Your task to perform on an android device: Open sound settings Image 0: 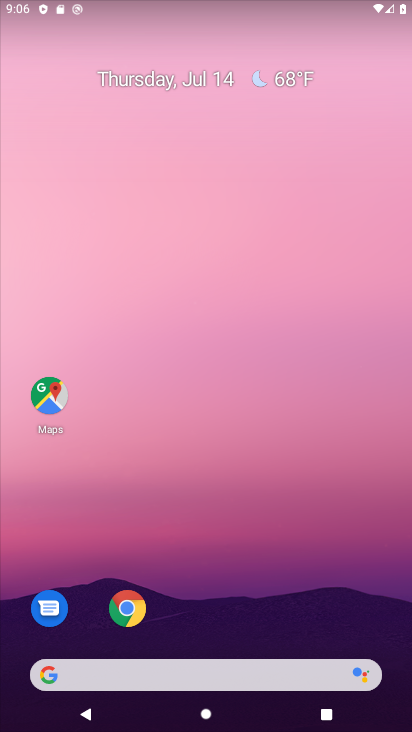
Step 0: click (231, 389)
Your task to perform on an android device: Open sound settings Image 1: 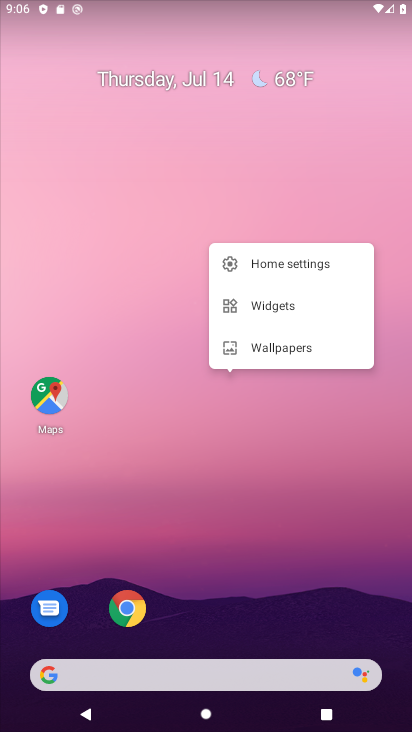
Step 1: drag from (195, 678) to (125, 123)
Your task to perform on an android device: Open sound settings Image 2: 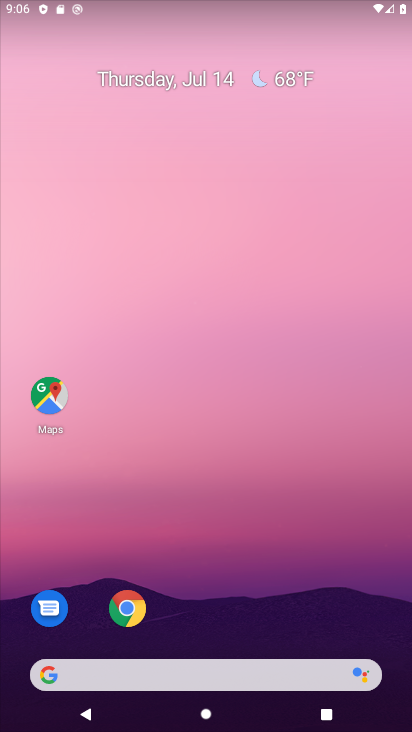
Step 2: drag from (210, 684) to (220, 93)
Your task to perform on an android device: Open sound settings Image 3: 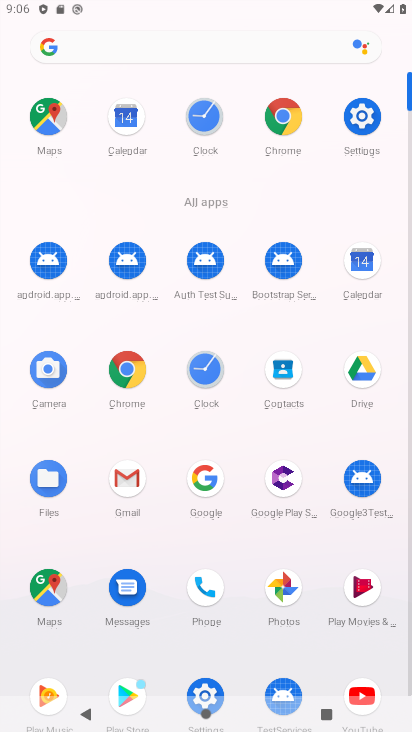
Step 3: click (357, 114)
Your task to perform on an android device: Open sound settings Image 4: 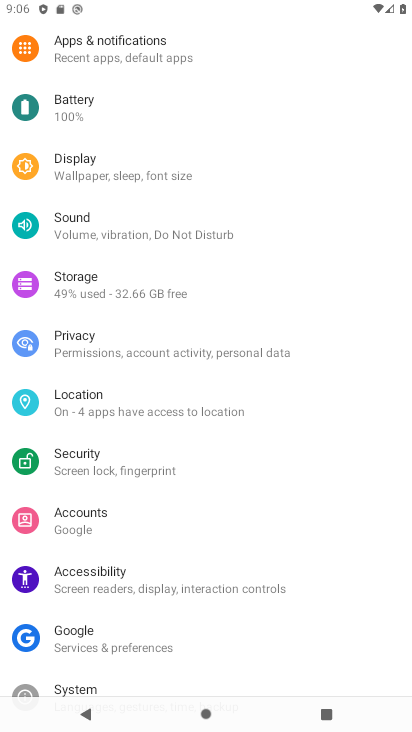
Step 4: click (66, 230)
Your task to perform on an android device: Open sound settings Image 5: 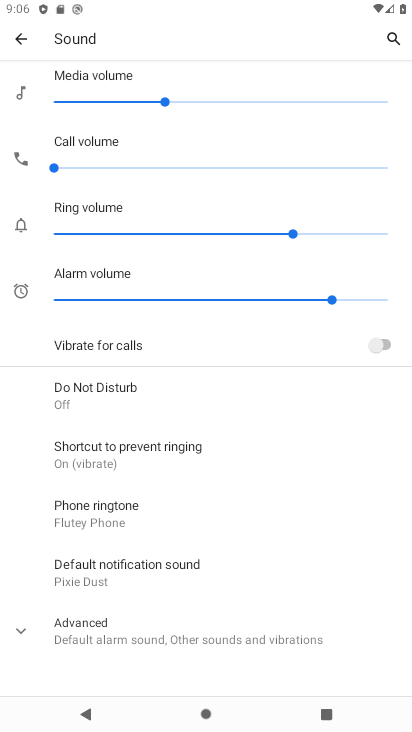
Step 5: task complete